Your task to perform on an android device: Open Google Maps Image 0: 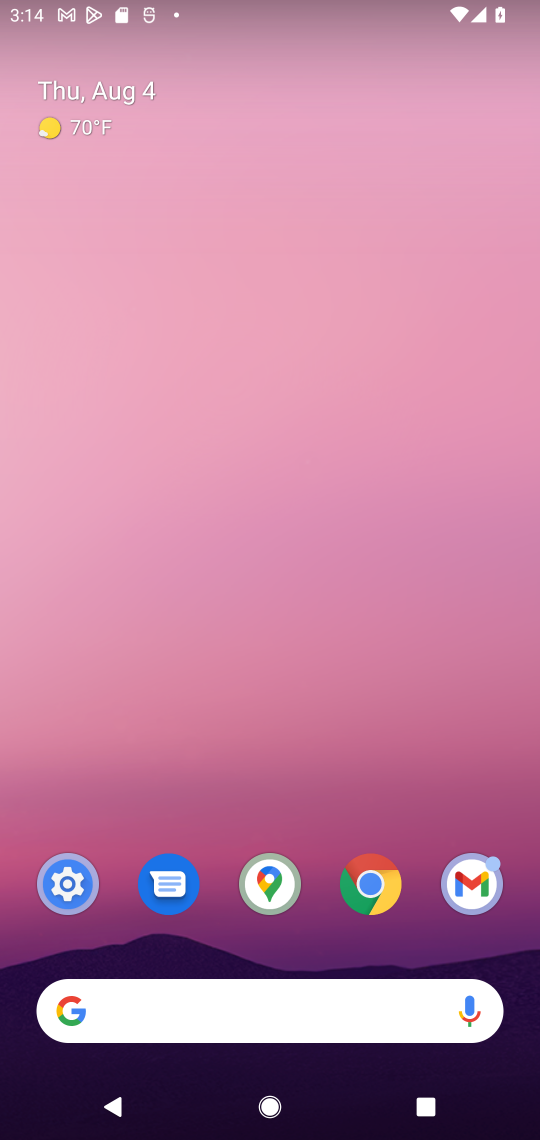
Step 0: click (261, 897)
Your task to perform on an android device: Open Google Maps Image 1: 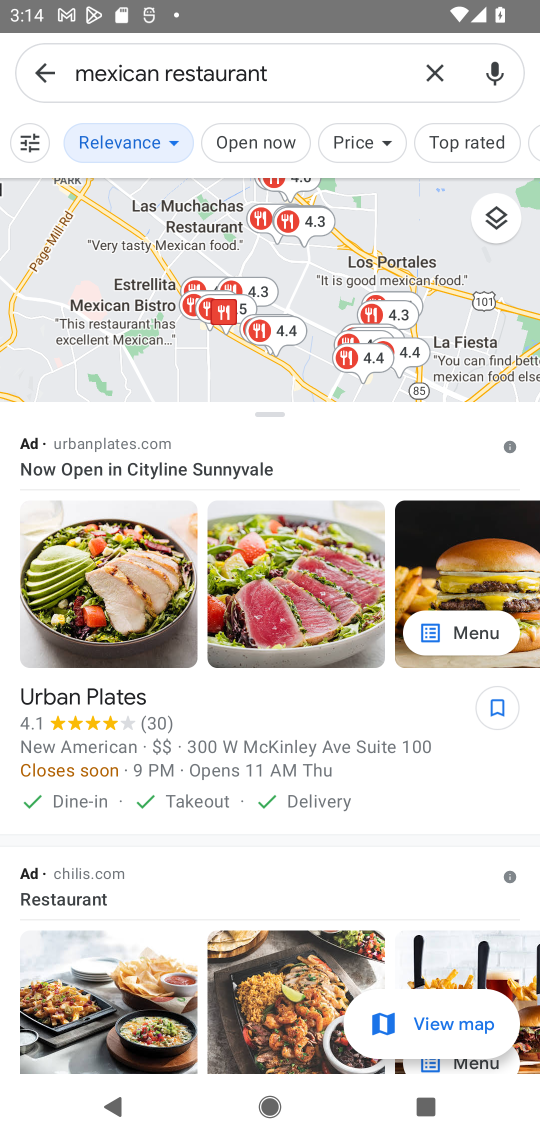
Step 1: task complete